Your task to perform on an android device: Search for Italian restaurants on Maps Image 0: 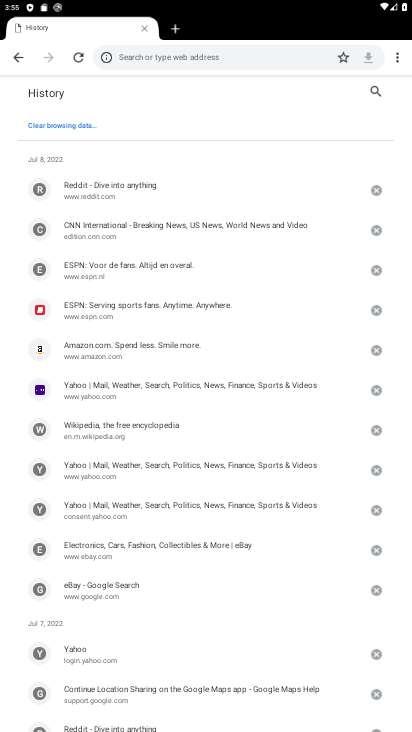
Step 0: press home button
Your task to perform on an android device: Search for Italian restaurants on Maps Image 1: 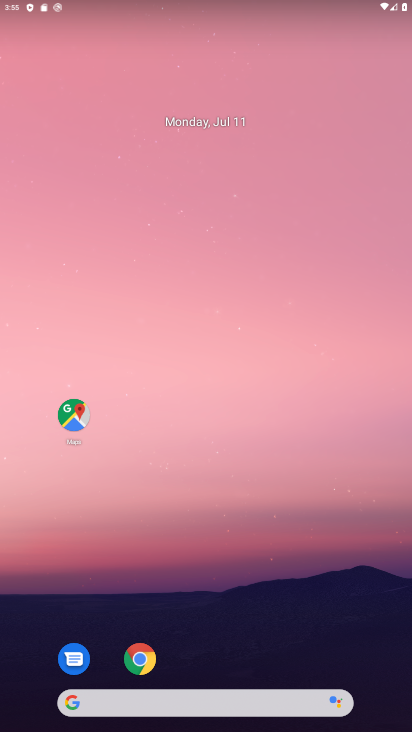
Step 1: drag from (196, 603) to (196, 168)
Your task to perform on an android device: Search for Italian restaurants on Maps Image 2: 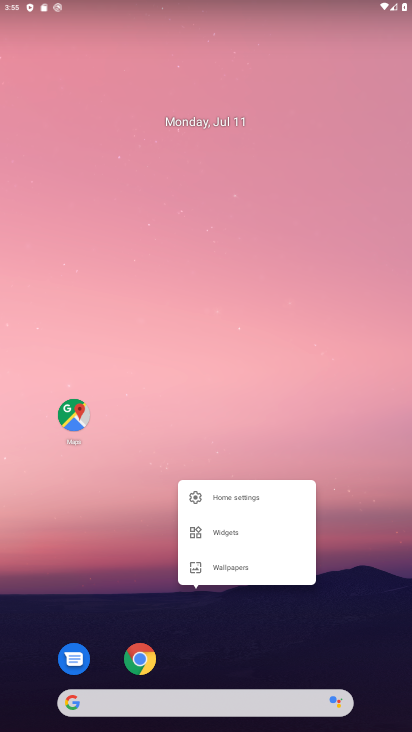
Step 2: drag from (202, 591) to (217, 1)
Your task to perform on an android device: Search for Italian restaurants on Maps Image 3: 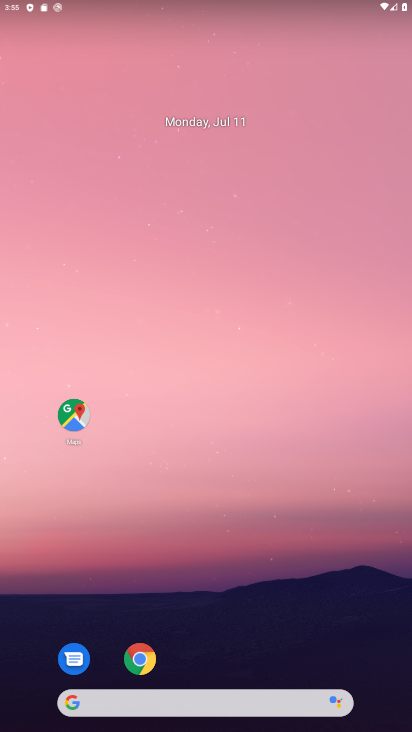
Step 3: drag from (176, 668) to (179, 44)
Your task to perform on an android device: Search for Italian restaurants on Maps Image 4: 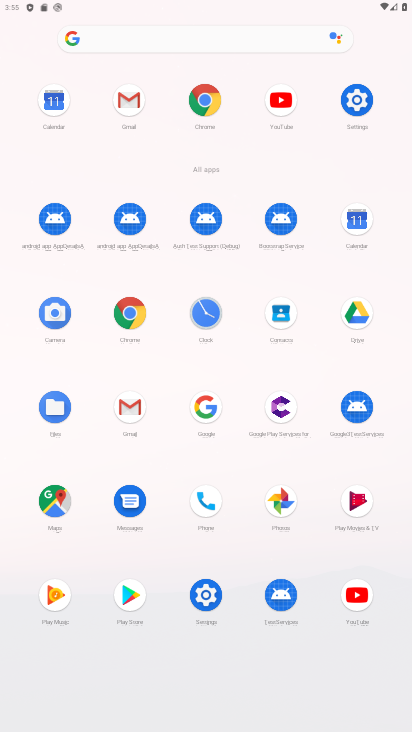
Step 4: click (180, 655)
Your task to perform on an android device: Search for Italian restaurants on Maps Image 5: 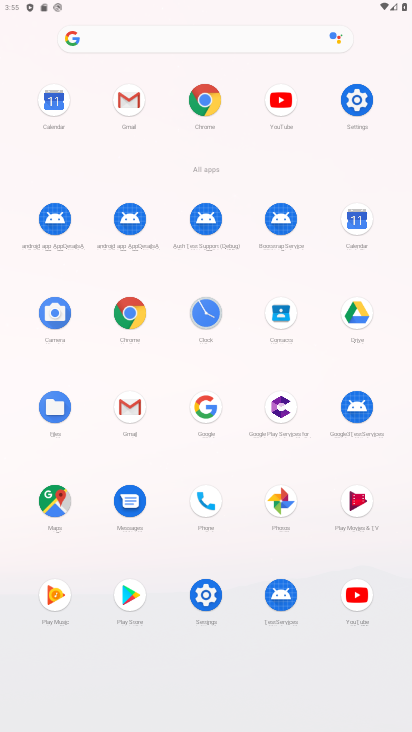
Step 5: click (52, 498)
Your task to perform on an android device: Search for Italian restaurants on Maps Image 6: 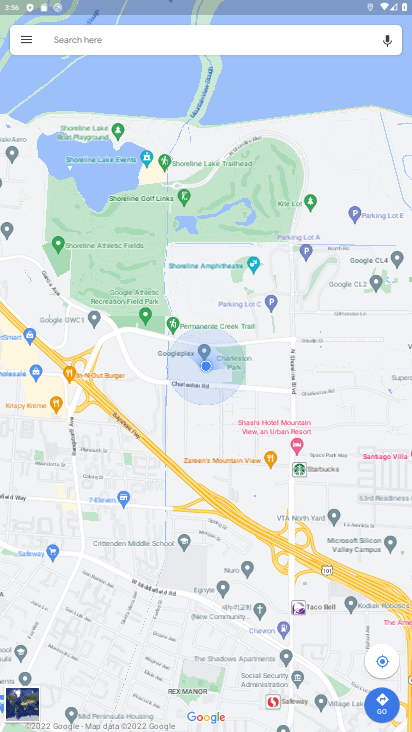
Step 6: click (173, 39)
Your task to perform on an android device: Search for Italian restaurants on Maps Image 7: 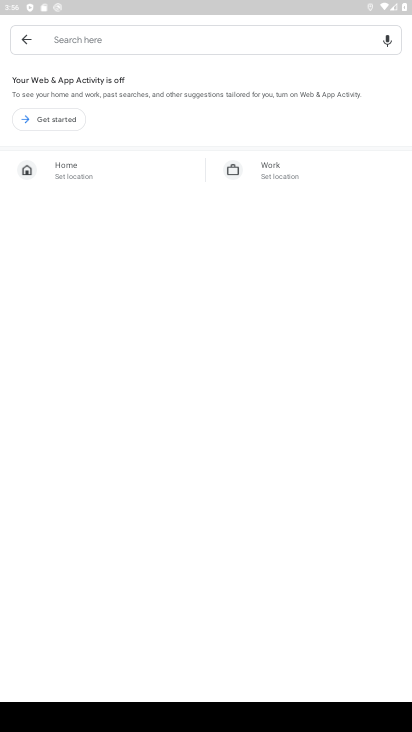
Step 7: type "italian restaurants"
Your task to perform on an android device: Search for Italian restaurants on Maps Image 8: 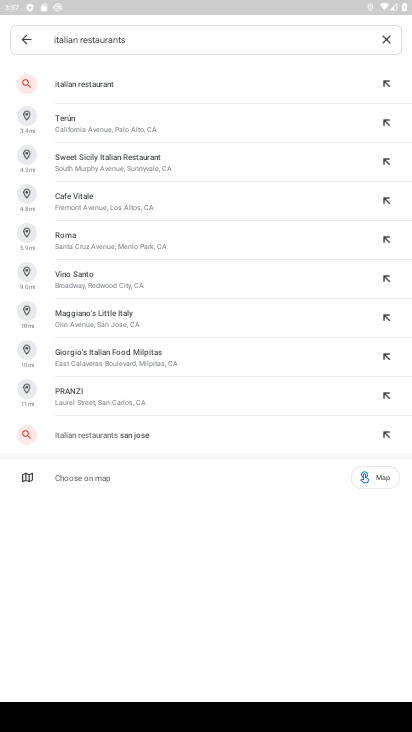
Step 8: click (126, 85)
Your task to perform on an android device: Search for Italian restaurants on Maps Image 9: 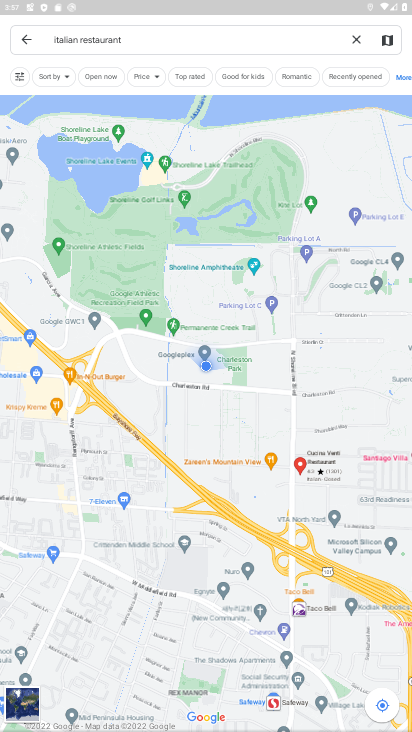
Step 9: click (208, 44)
Your task to perform on an android device: Search for Italian restaurants on Maps Image 10: 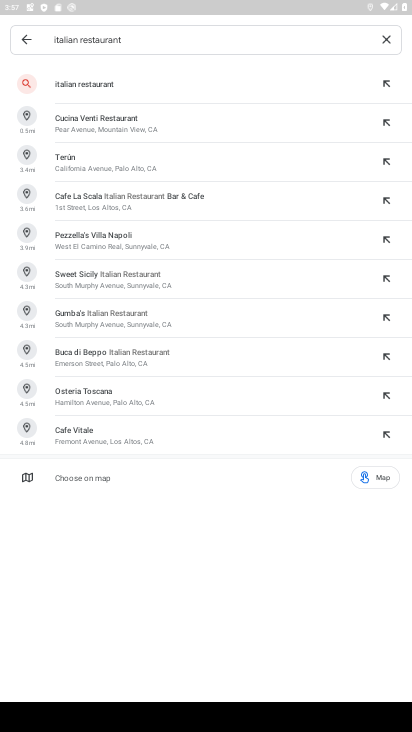
Step 10: click (95, 89)
Your task to perform on an android device: Search for Italian restaurants on Maps Image 11: 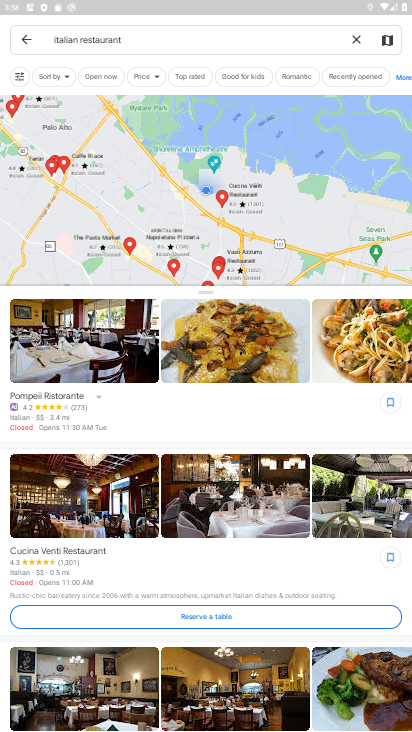
Step 11: task complete